Your task to perform on an android device: Open Google Maps and go to "Timeline" Image 0: 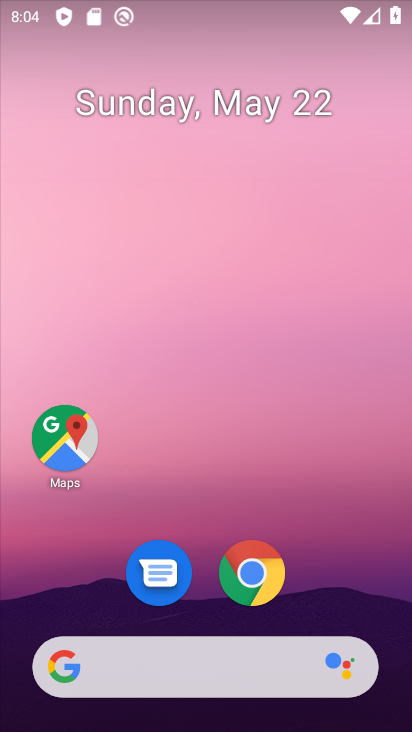
Step 0: click (193, 90)
Your task to perform on an android device: Open Google Maps and go to "Timeline" Image 1: 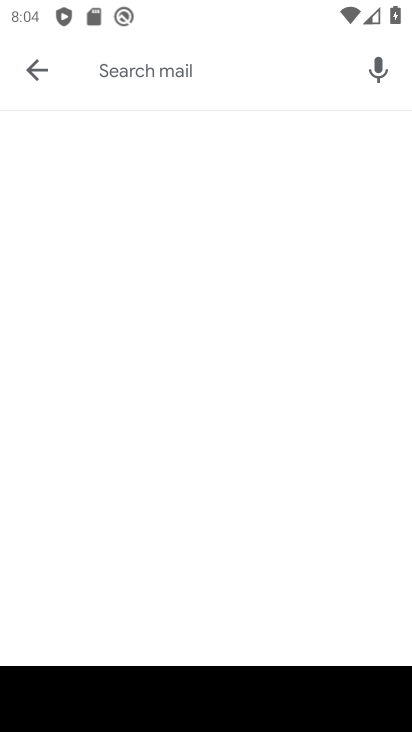
Step 1: click (243, 415)
Your task to perform on an android device: Open Google Maps and go to "Timeline" Image 2: 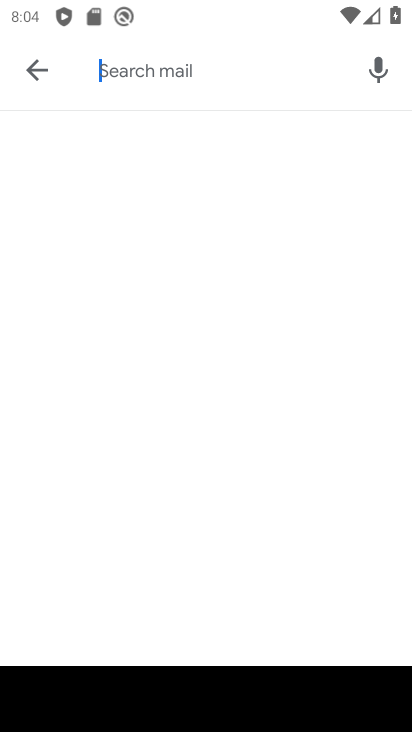
Step 2: press home button
Your task to perform on an android device: Open Google Maps and go to "Timeline" Image 3: 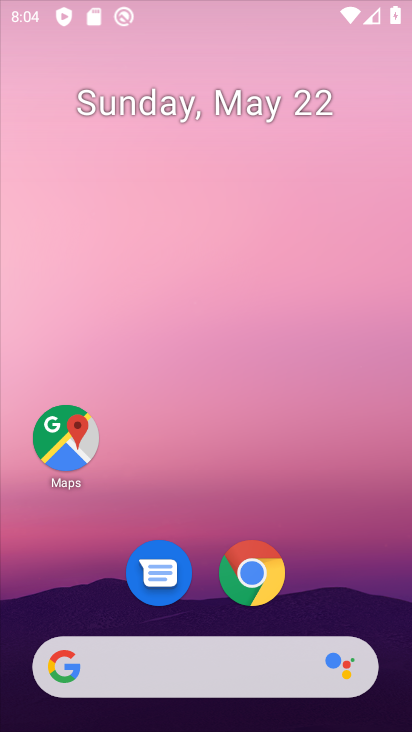
Step 3: drag from (208, 590) to (208, 36)
Your task to perform on an android device: Open Google Maps and go to "Timeline" Image 4: 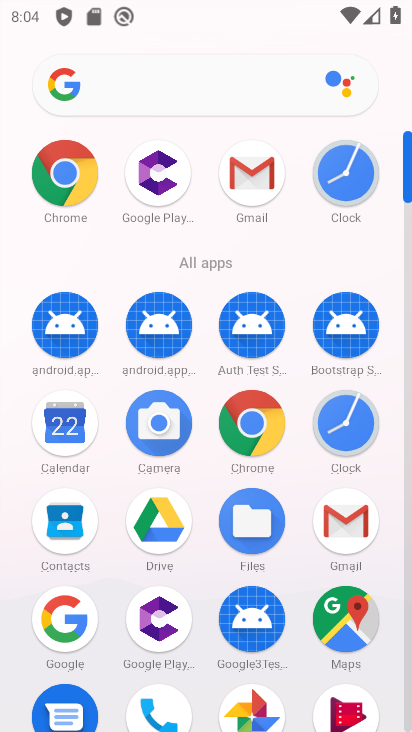
Step 4: click (257, 181)
Your task to perform on an android device: Open Google Maps and go to "Timeline" Image 5: 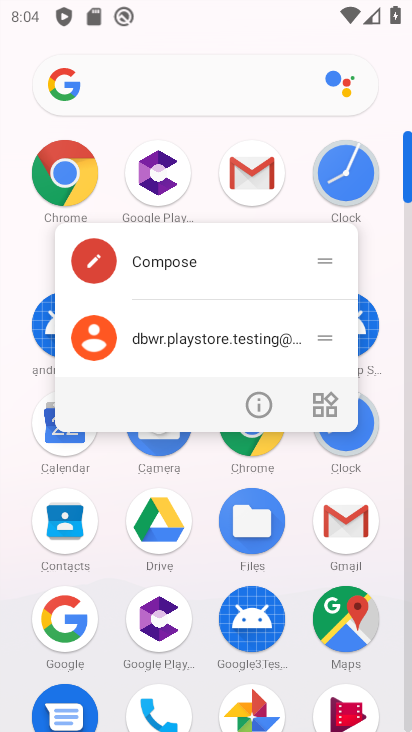
Step 5: click (250, 407)
Your task to perform on an android device: Open Google Maps and go to "Timeline" Image 6: 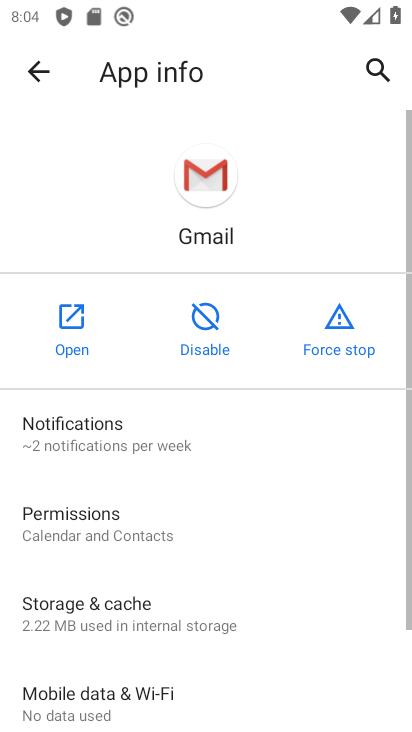
Step 6: click (65, 302)
Your task to perform on an android device: Open Google Maps and go to "Timeline" Image 7: 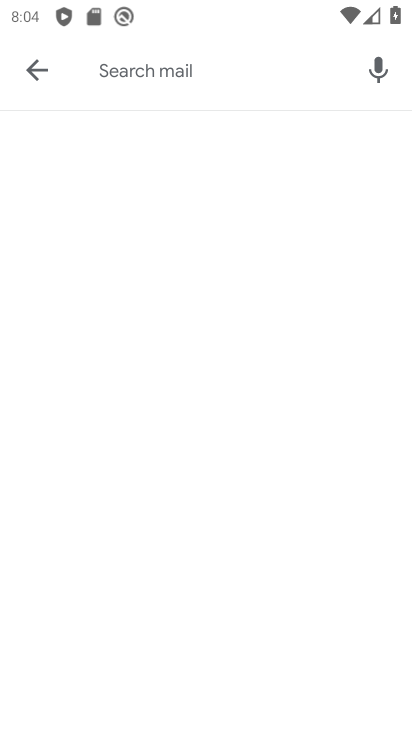
Step 7: click (32, 59)
Your task to perform on an android device: Open Google Maps and go to "Timeline" Image 8: 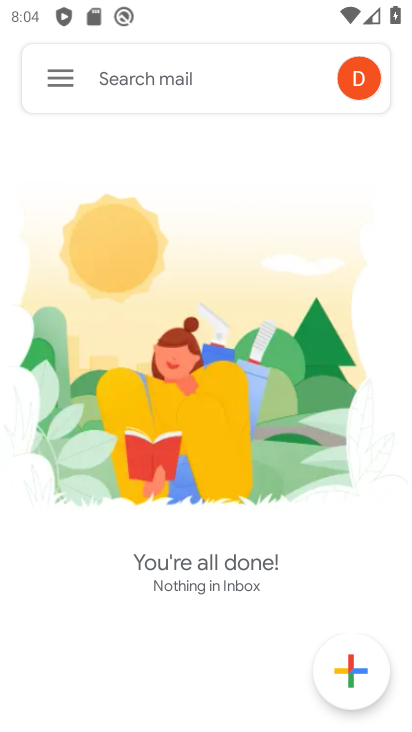
Step 8: click (52, 110)
Your task to perform on an android device: Open Google Maps and go to "Timeline" Image 9: 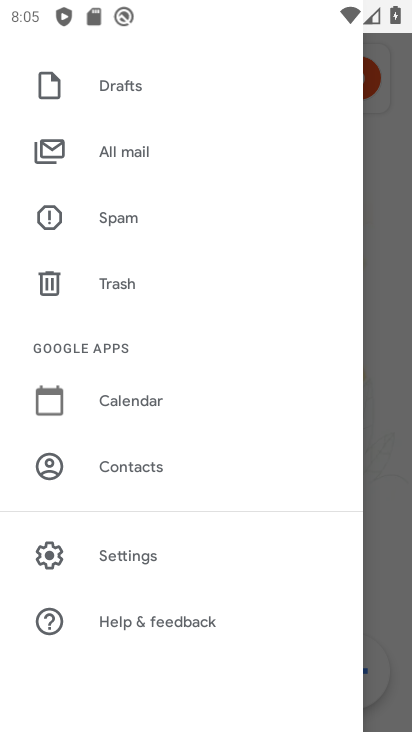
Step 9: drag from (170, 160) to (178, 724)
Your task to perform on an android device: Open Google Maps and go to "Timeline" Image 10: 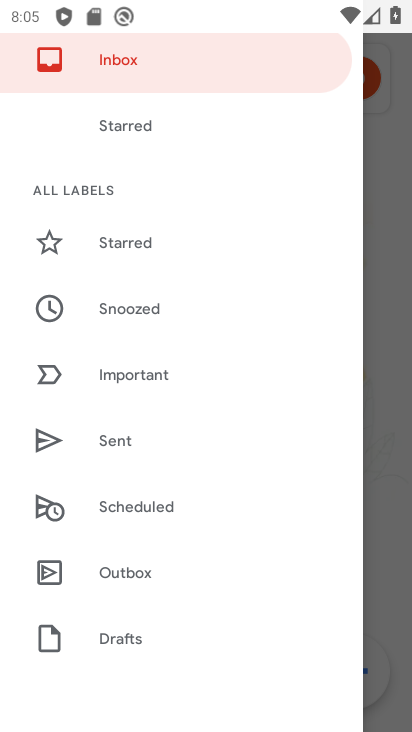
Step 10: drag from (155, 165) to (183, 612)
Your task to perform on an android device: Open Google Maps and go to "Timeline" Image 11: 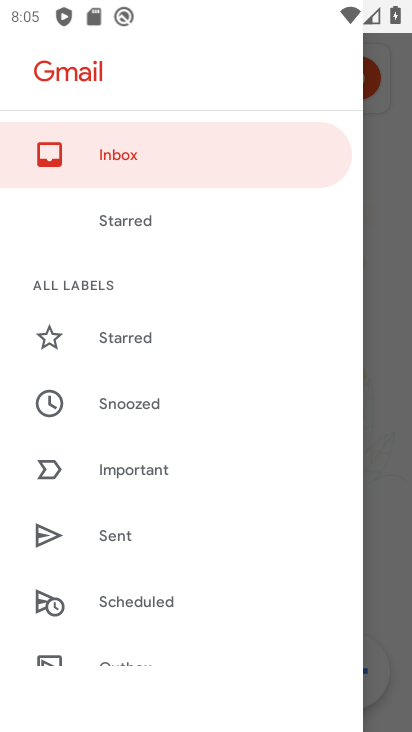
Step 11: click (372, 301)
Your task to perform on an android device: Open Google Maps and go to "Timeline" Image 12: 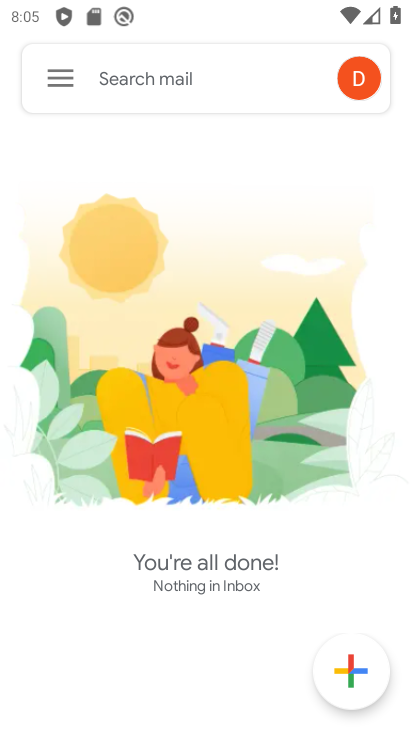
Step 12: press home button
Your task to perform on an android device: Open Google Maps and go to "Timeline" Image 13: 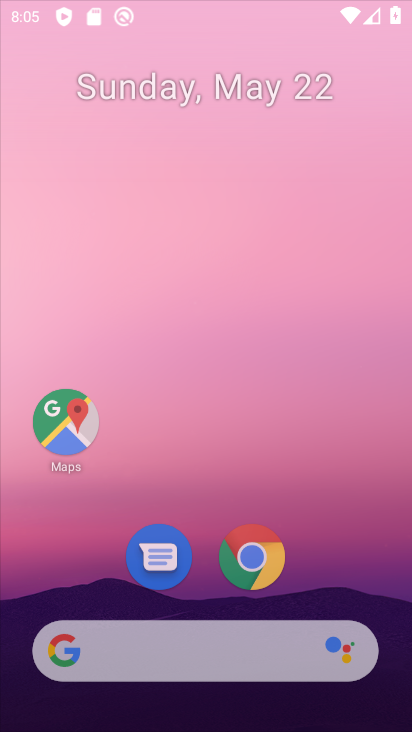
Step 13: drag from (221, 588) to (272, 18)
Your task to perform on an android device: Open Google Maps and go to "Timeline" Image 14: 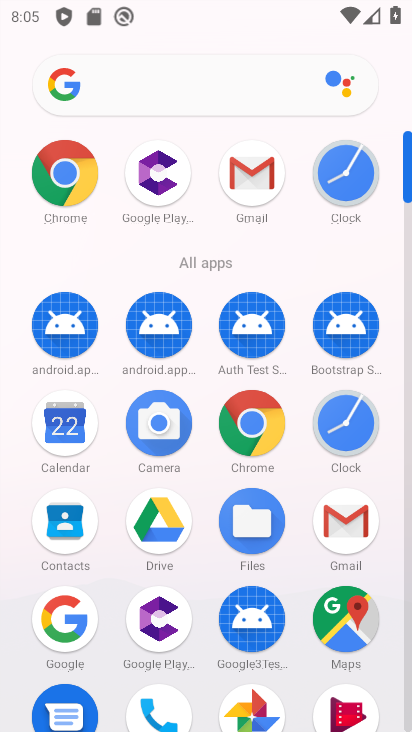
Step 14: click (331, 637)
Your task to perform on an android device: Open Google Maps and go to "Timeline" Image 15: 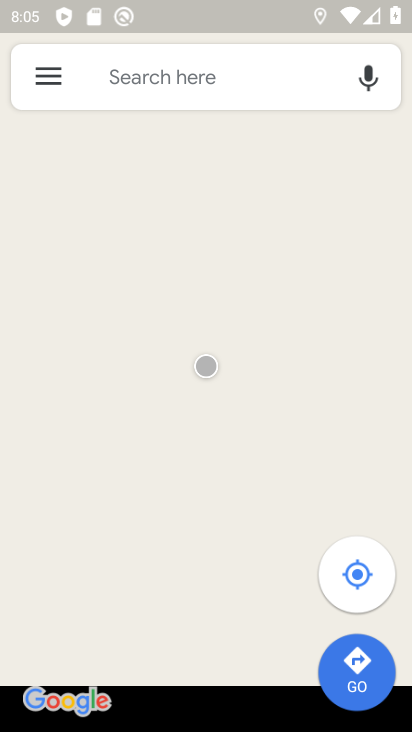
Step 15: click (46, 65)
Your task to perform on an android device: Open Google Maps and go to "Timeline" Image 16: 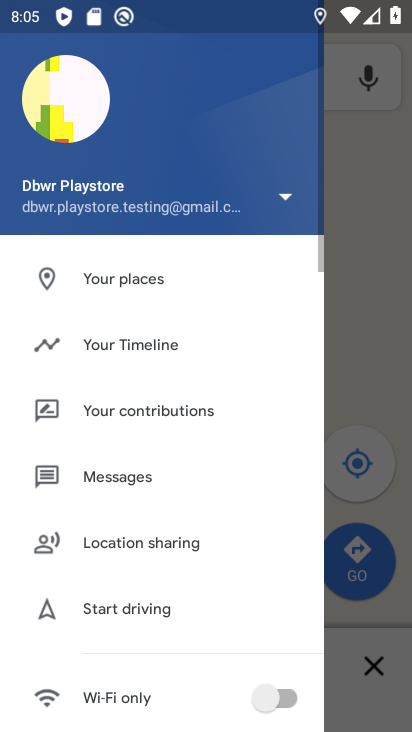
Step 16: click (154, 340)
Your task to perform on an android device: Open Google Maps and go to "Timeline" Image 17: 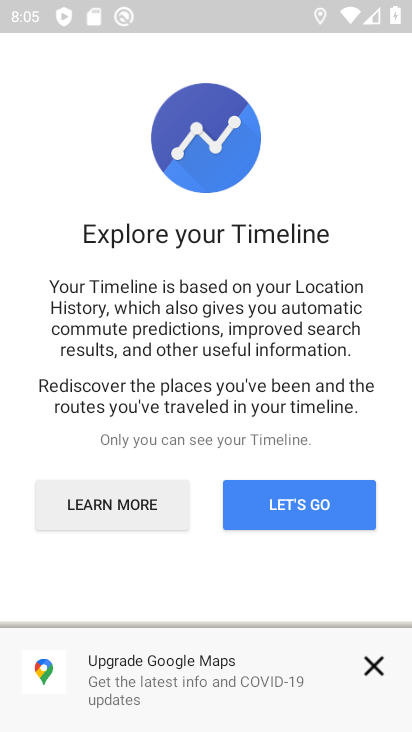
Step 17: click (322, 503)
Your task to perform on an android device: Open Google Maps and go to "Timeline" Image 18: 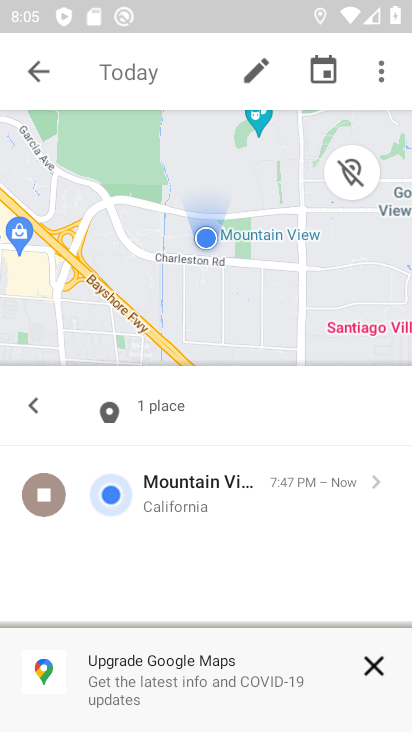
Step 18: task complete